Your task to perform on an android device: turn off data saver in the chrome app Image 0: 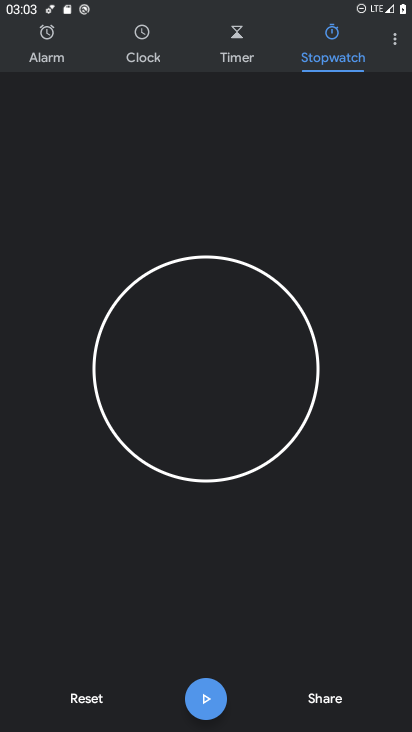
Step 0: press home button
Your task to perform on an android device: turn off data saver in the chrome app Image 1: 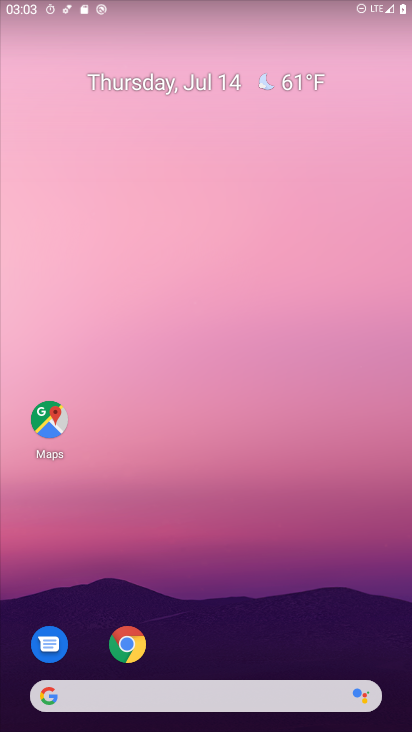
Step 1: drag from (253, 486) to (213, 36)
Your task to perform on an android device: turn off data saver in the chrome app Image 2: 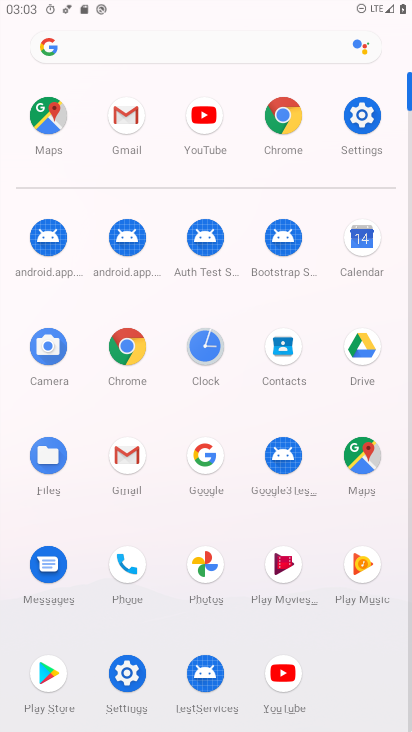
Step 2: click (279, 114)
Your task to perform on an android device: turn off data saver in the chrome app Image 3: 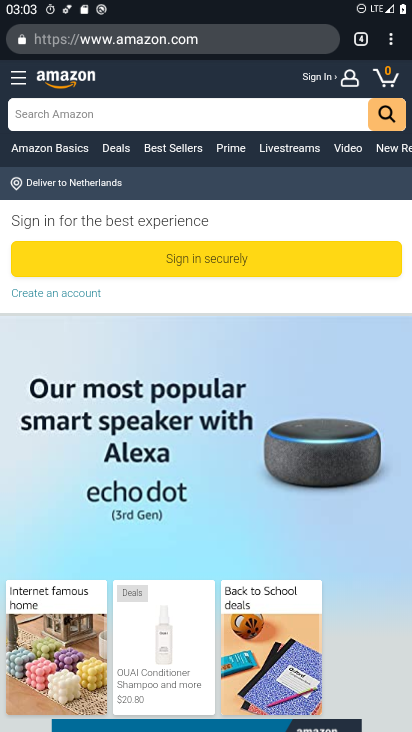
Step 3: drag from (385, 39) to (257, 470)
Your task to perform on an android device: turn off data saver in the chrome app Image 4: 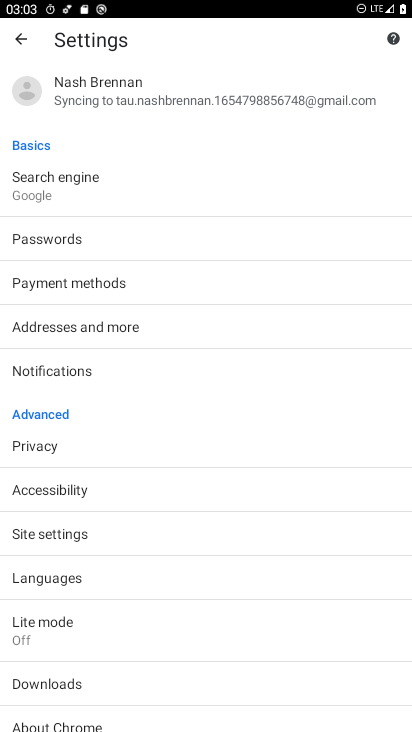
Step 4: click (47, 631)
Your task to perform on an android device: turn off data saver in the chrome app Image 5: 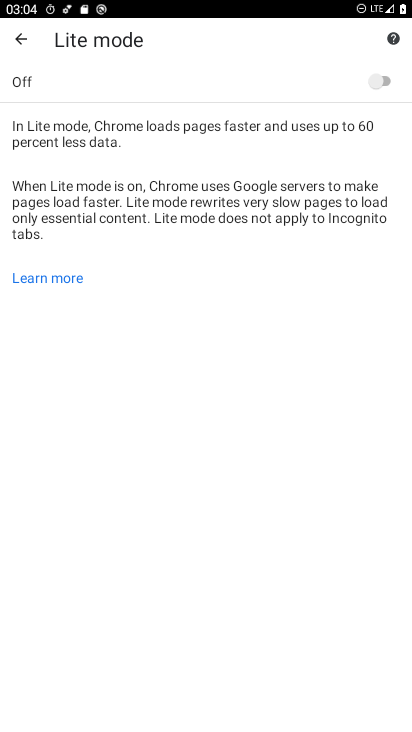
Step 5: task complete